Your task to perform on an android device: Open ESPN.com Image 0: 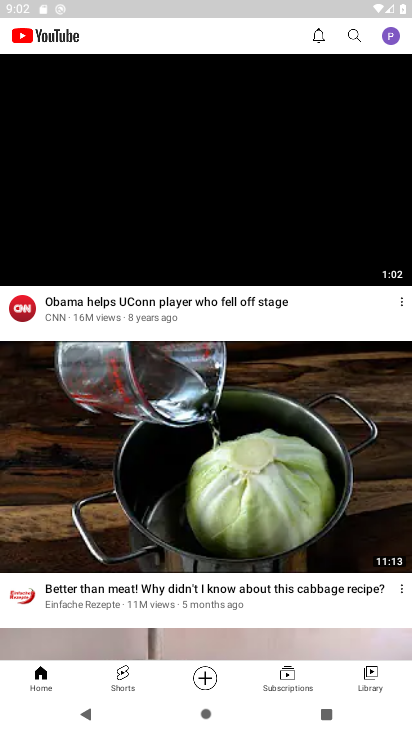
Step 0: press home button
Your task to perform on an android device: Open ESPN.com Image 1: 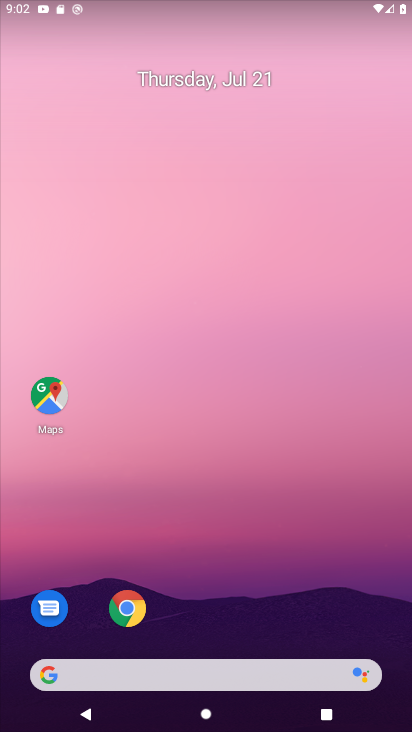
Step 1: click (130, 610)
Your task to perform on an android device: Open ESPN.com Image 2: 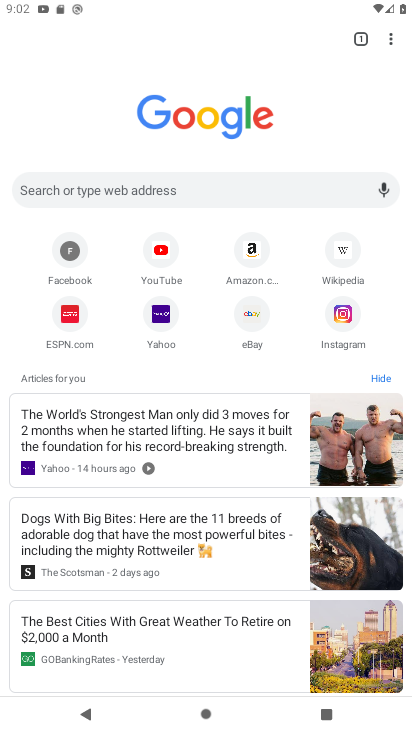
Step 2: click (65, 319)
Your task to perform on an android device: Open ESPN.com Image 3: 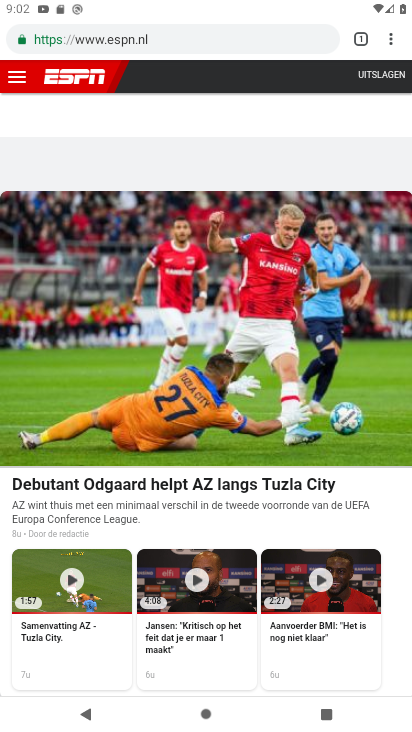
Step 3: task complete